Your task to perform on an android device: Search for jbl charge 4 on costco.com, select the first entry, and add it to the cart. Image 0: 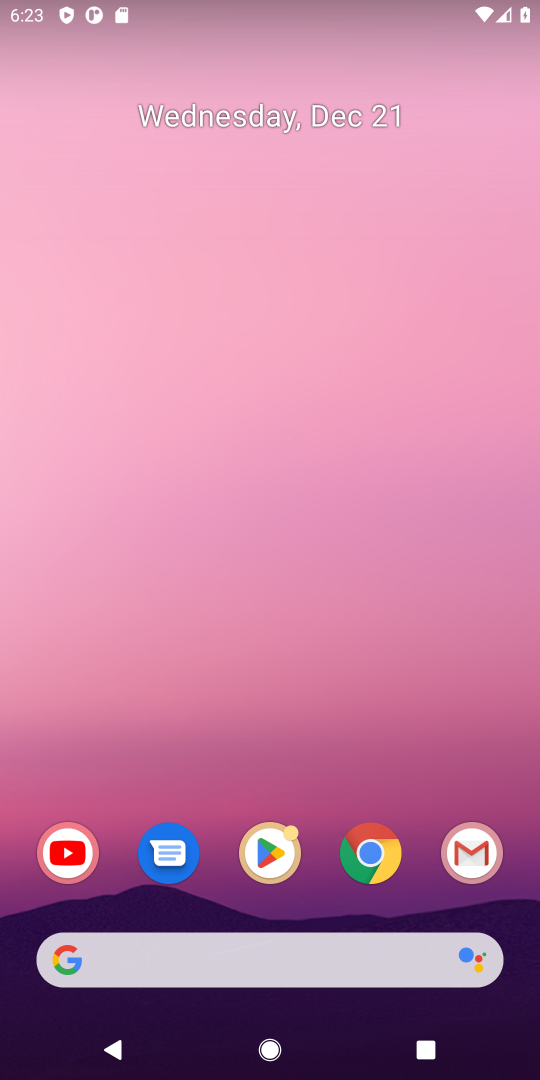
Step 0: click (369, 844)
Your task to perform on an android device: Search for jbl charge 4 on costco.com, select the first entry, and add it to the cart. Image 1: 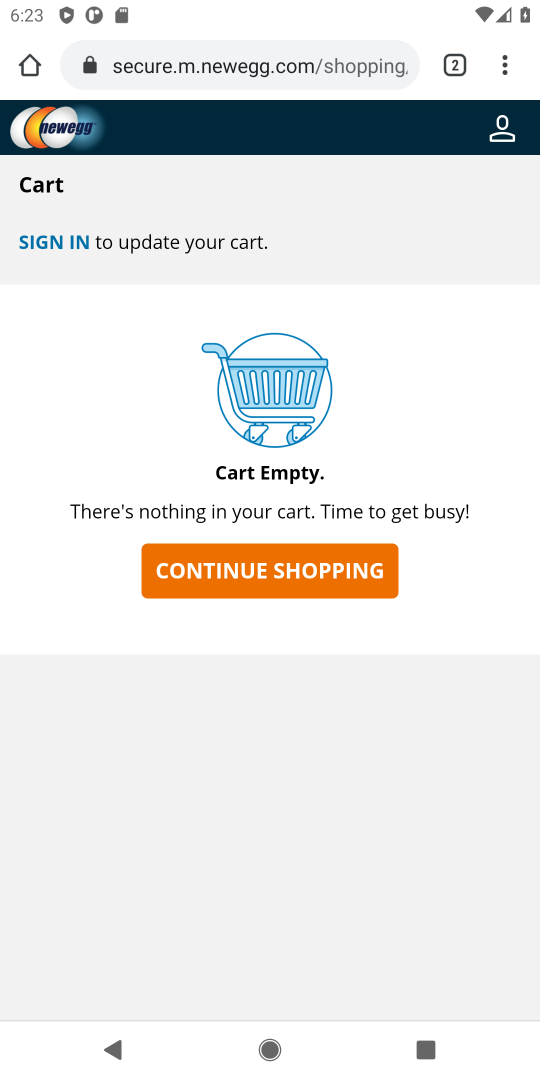
Step 1: click (459, 71)
Your task to perform on an android device: Search for jbl charge 4 on costco.com, select the first entry, and add it to the cart. Image 2: 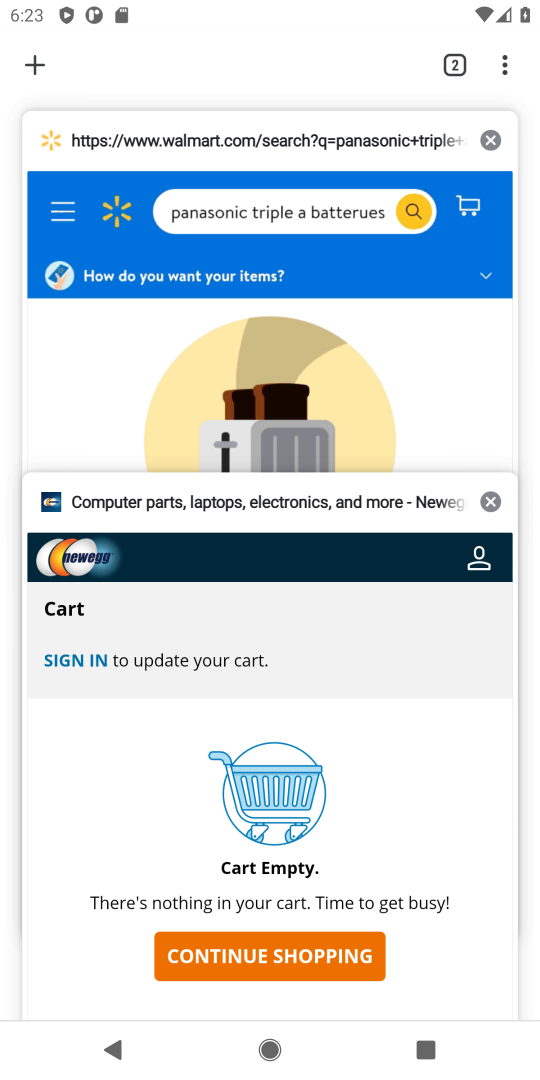
Step 2: click (35, 59)
Your task to perform on an android device: Search for jbl charge 4 on costco.com, select the first entry, and add it to the cart. Image 3: 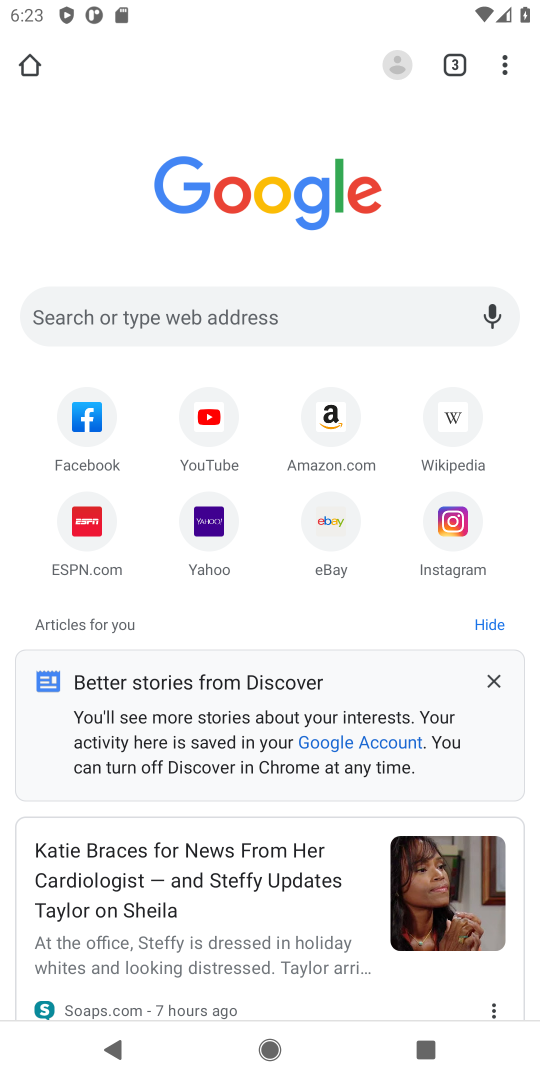
Step 3: click (182, 300)
Your task to perform on an android device: Search for jbl charge 4 on costco.com, select the first entry, and add it to the cart. Image 4: 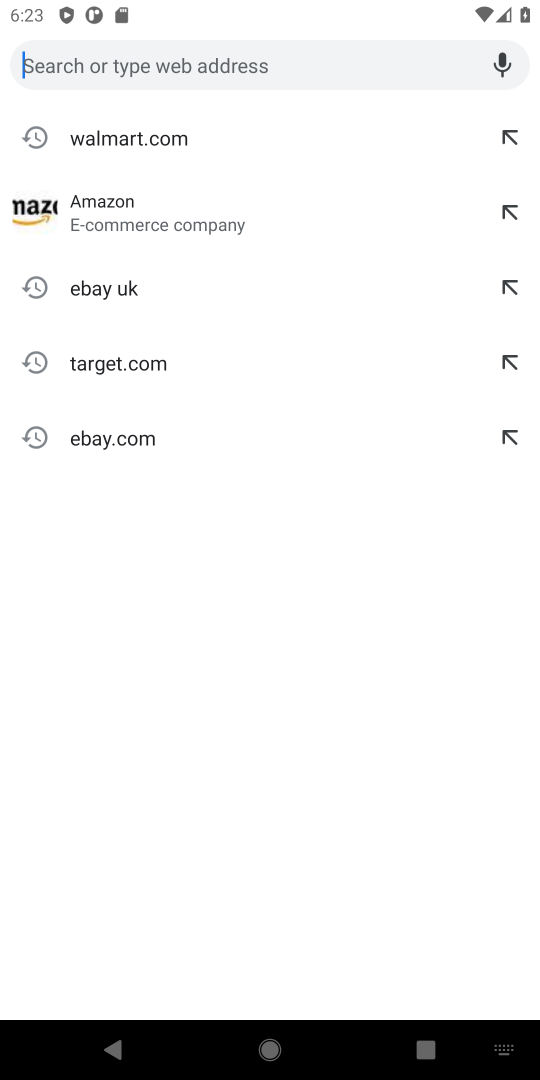
Step 4: type "costco"
Your task to perform on an android device: Search for jbl charge 4 on costco.com, select the first entry, and add it to the cart. Image 5: 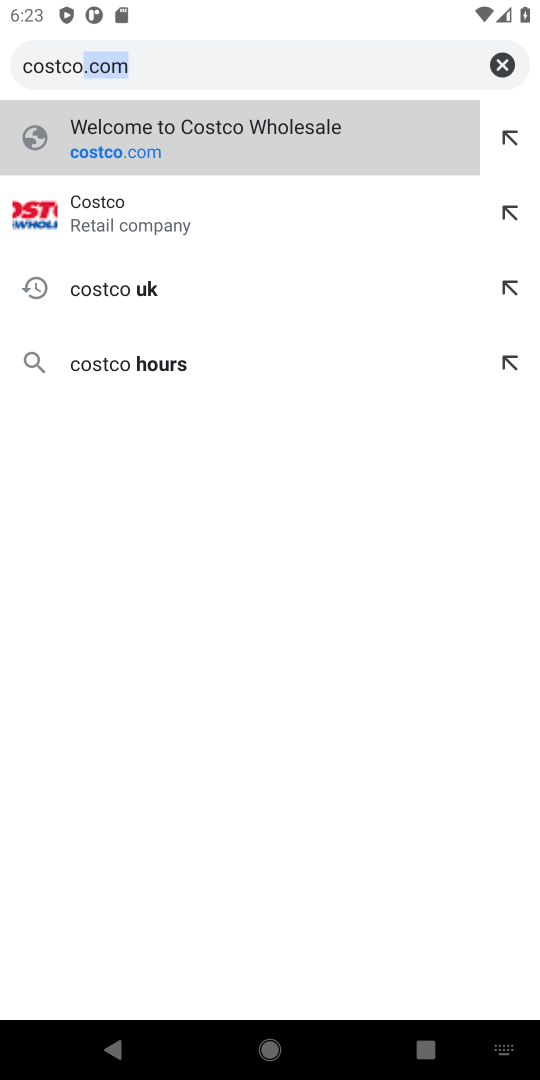
Step 5: click (105, 219)
Your task to perform on an android device: Search for jbl charge 4 on costco.com, select the first entry, and add it to the cart. Image 6: 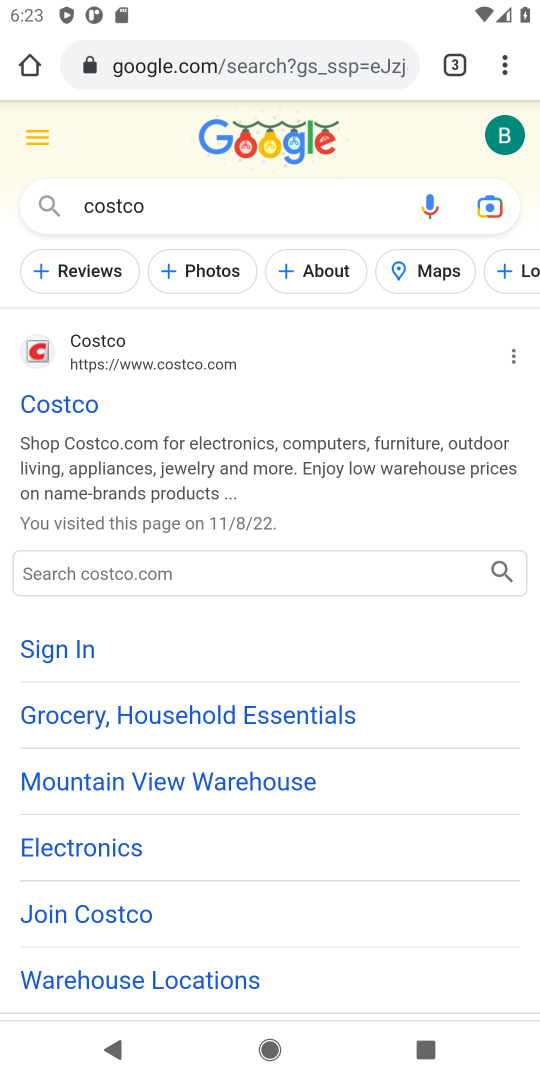
Step 6: click (93, 574)
Your task to perform on an android device: Search for jbl charge 4 on costco.com, select the first entry, and add it to the cart. Image 7: 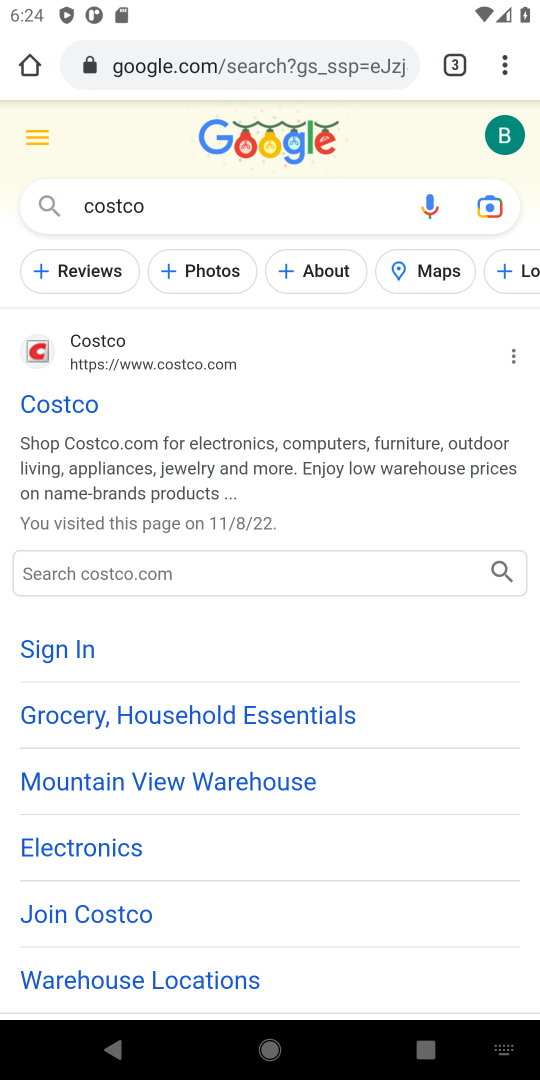
Step 7: type "jbl charge 4"
Your task to perform on an android device: Search for jbl charge 4 on costco.com, select the first entry, and add it to the cart. Image 8: 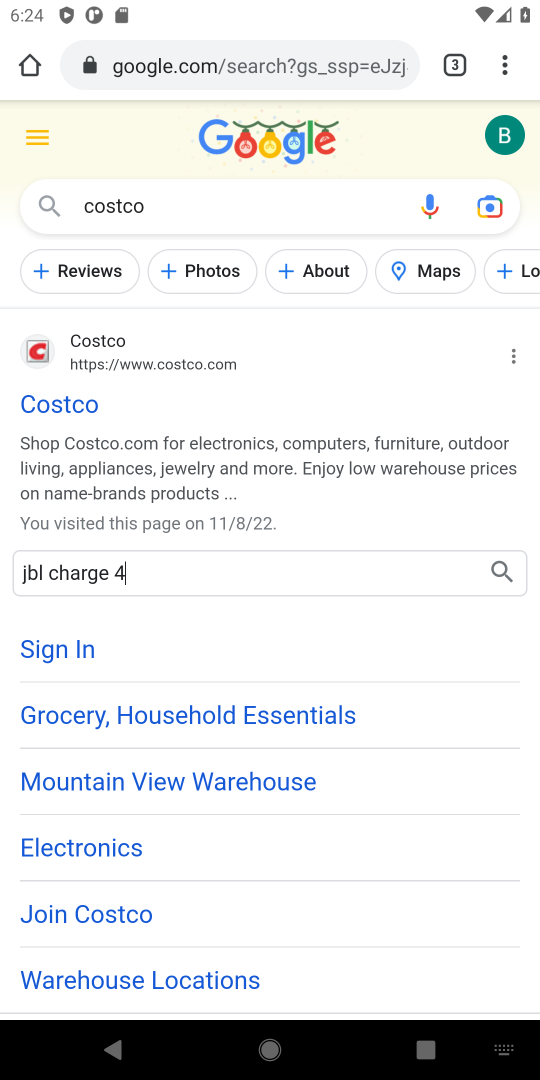
Step 8: click (504, 574)
Your task to perform on an android device: Search for jbl charge 4 on costco.com, select the first entry, and add it to the cart. Image 9: 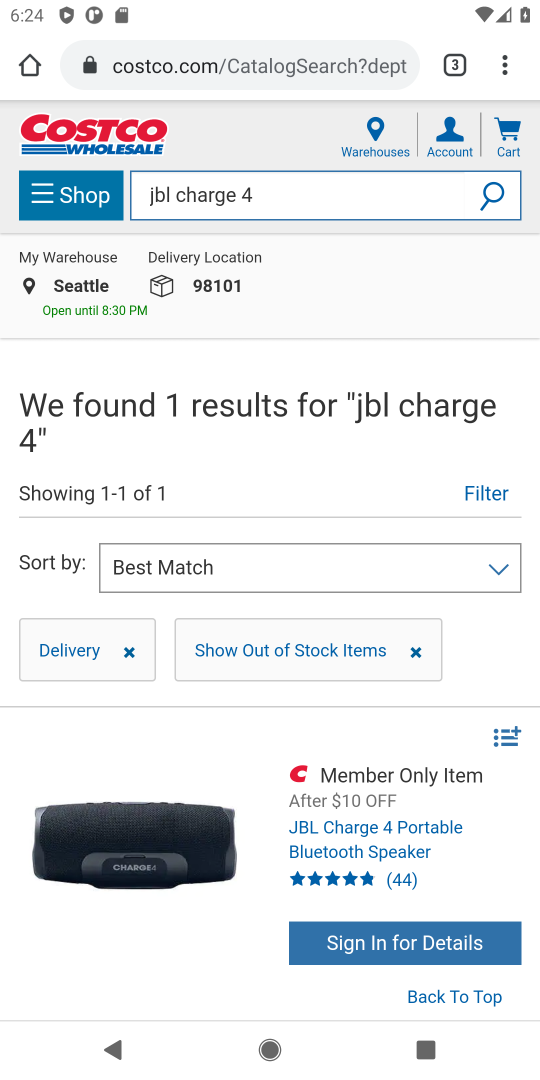
Step 9: task complete